Your task to perform on an android device: toggle priority inbox in the gmail app Image 0: 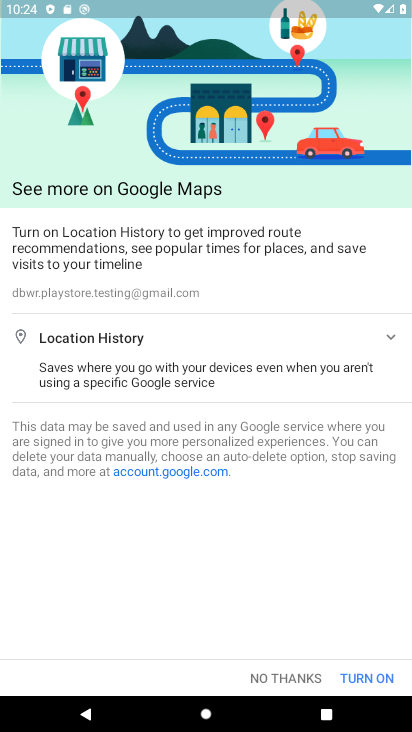
Step 0: press home button
Your task to perform on an android device: toggle priority inbox in the gmail app Image 1: 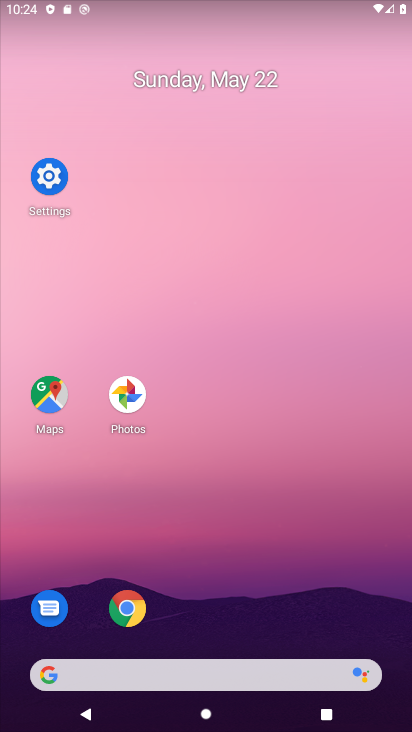
Step 1: drag from (250, 413) to (289, 100)
Your task to perform on an android device: toggle priority inbox in the gmail app Image 2: 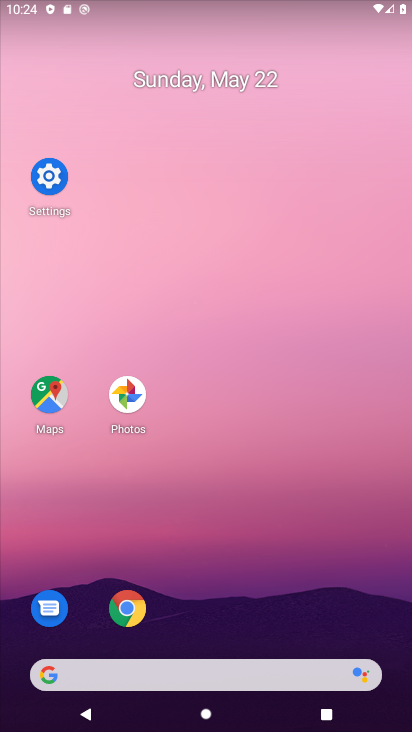
Step 2: drag from (230, 623) to (251, 146)
Your task to perform on an android device: toggle priority inbox in the gmail app Image 3: 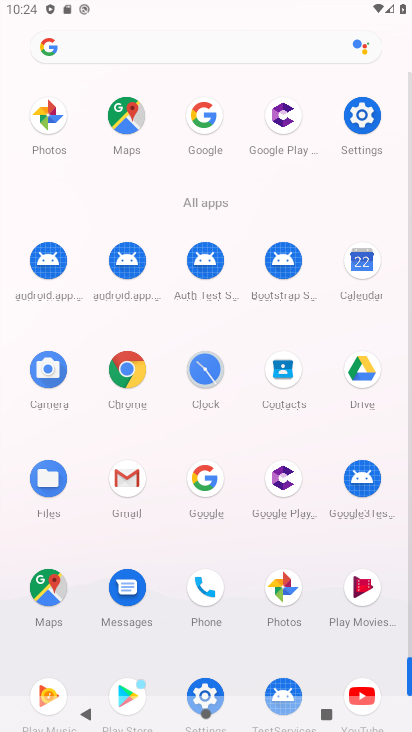
Step 3: drag from (139, 486) to (146, 183)
Your task to perform on an android device: toggle priority inbox in the gmail app Image 4: 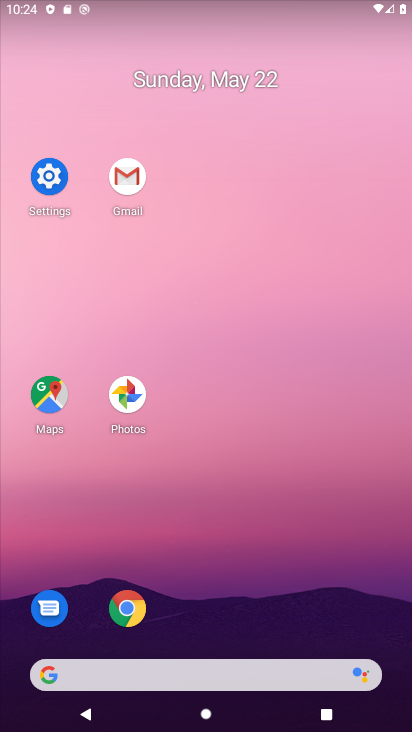
Step 4: click (137, 186)
Your task to perform on an android device: toggle priority inbox in the gmail app Image 5: 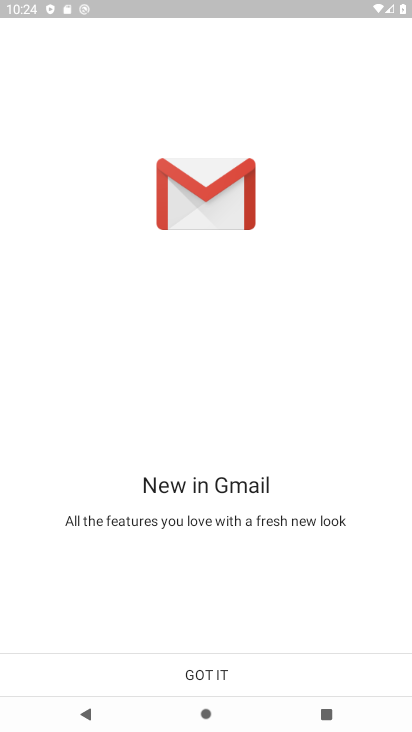
Step 5: click (182, 670)
Your task to perform on an android device: toggle priority inbox in the gmail app Image 6: 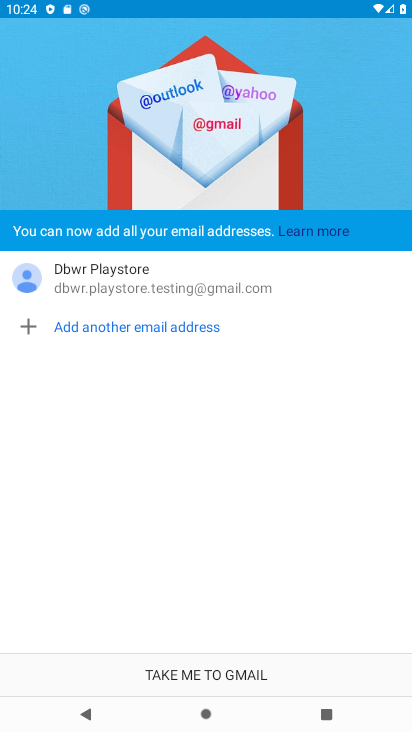
Step 6: click (182, 670)
Your task to perform on an android device: toggle priority inbox in the gmail app Image 7: 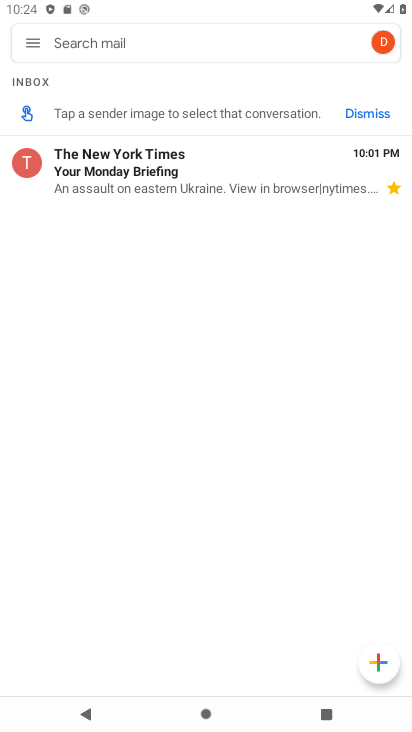
Step 7: click (32, 43)
Your task to perform on an android device: toggle priority inbox in the gmail app Image 8: 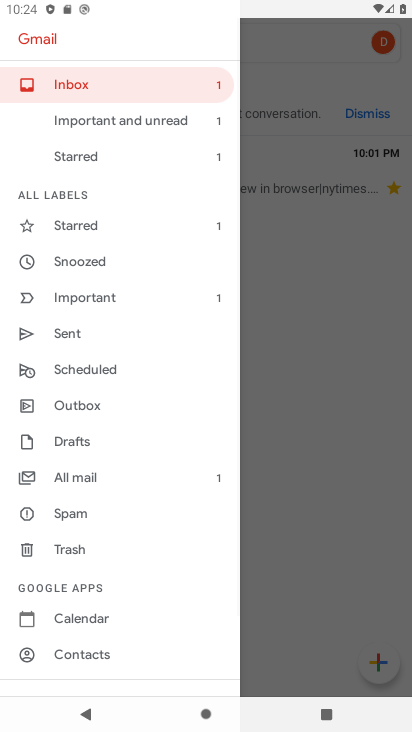
Step 8: drag from (137, 282) to (157, 182)
Your task to perform on an android device: toggle priority inbox in the gmail app Image 9: 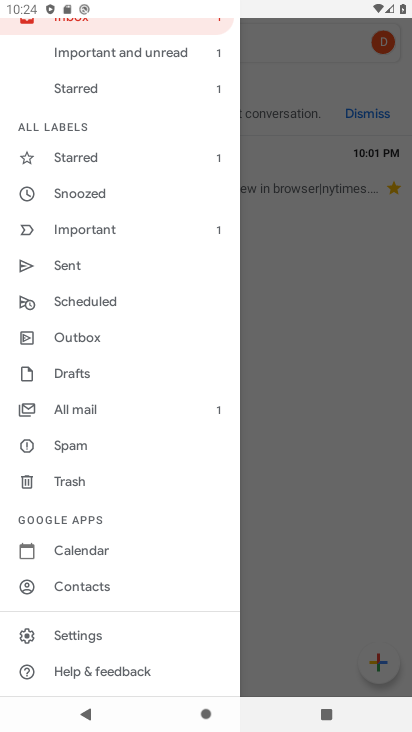
Step 9: click (62, 631)
Your task to perform on an android device: toggle priority inbox in the gmail app Image 10: 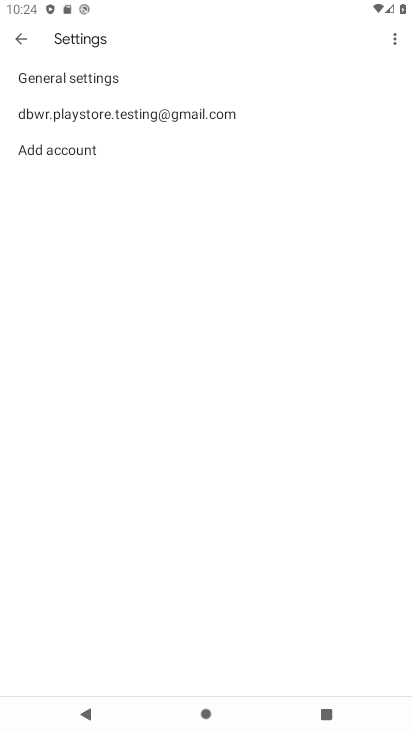
Step 10: click (167, 125)
Your task to perform on an android device: toggle priority inbox in the gmail app Image 11: 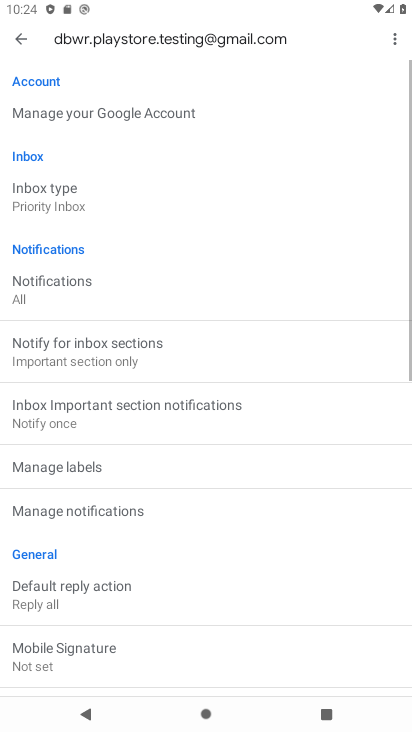
Step 11: click (130, 196)
Your task to perform on an android device: toggle priority inbox in the gmail app Image 12: 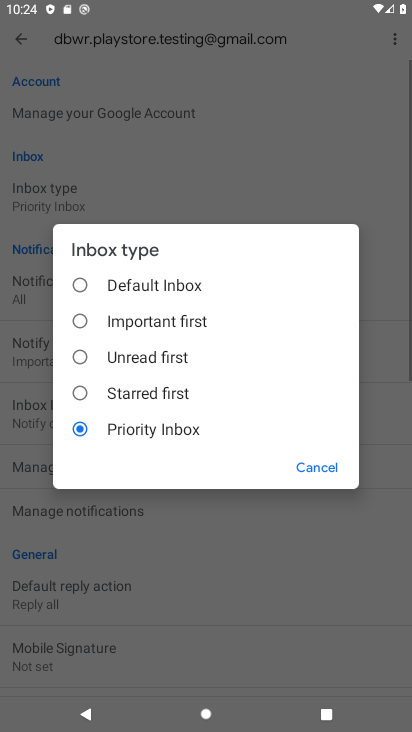
Step 12: click (144, 287)
Your task to perform on an android device: toggle priority inbox in the gmail app Image 13: 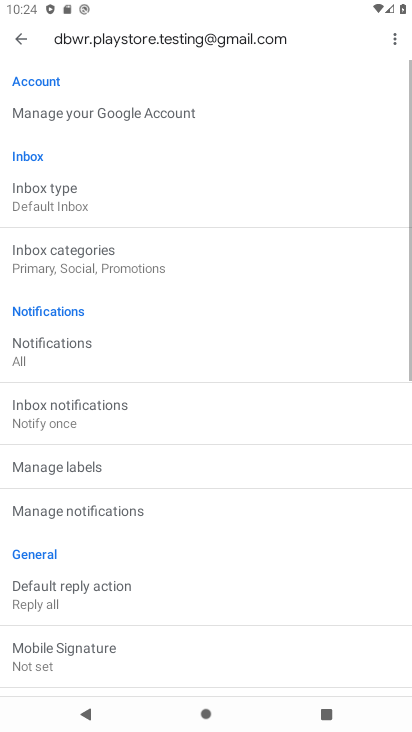
Step 13: task complete